Your task to perform on an android device: delete the emails in spam in the gmail app Image 0: 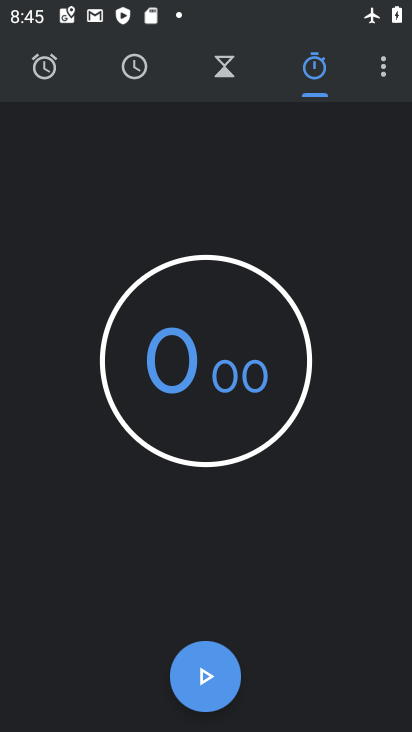
Step 0: drag from (193, 603) to (229, 340)
Your task to perform on an android device: delete the emails in spam in the gmail app Image 1: 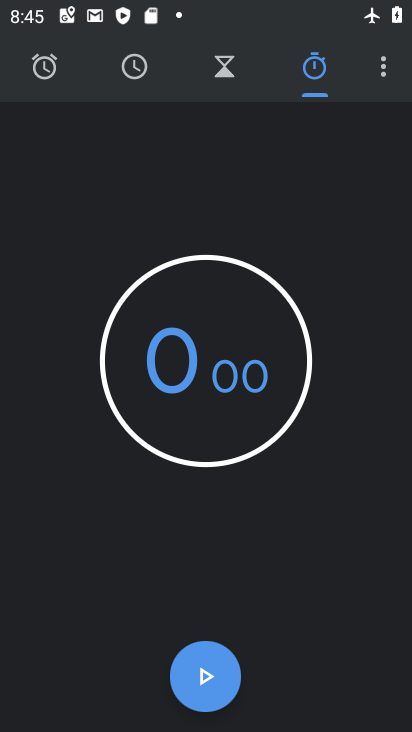
Step 1: click (302, 377)
Your task to perform on an android device: delete the emails in spam in the gmail app Image 2: 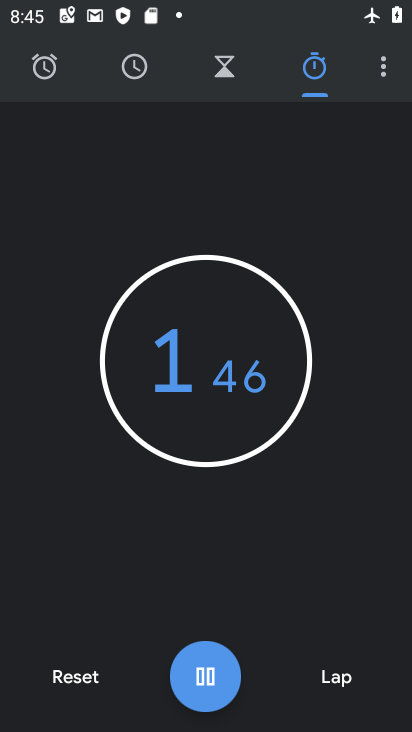
Step 2: click (392, 71)
Your task to perform on an android device: delete the emails in spam in the gmail app Image 3: 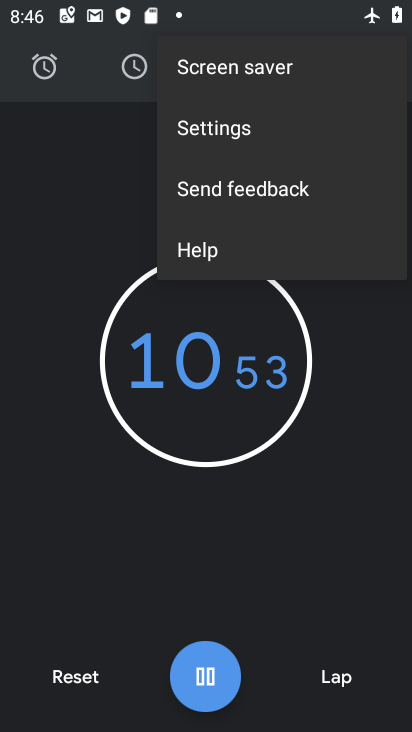
Step 3: press home button
Your task to perform on an android device: delete the emails in spam in the gmail app Image 4: 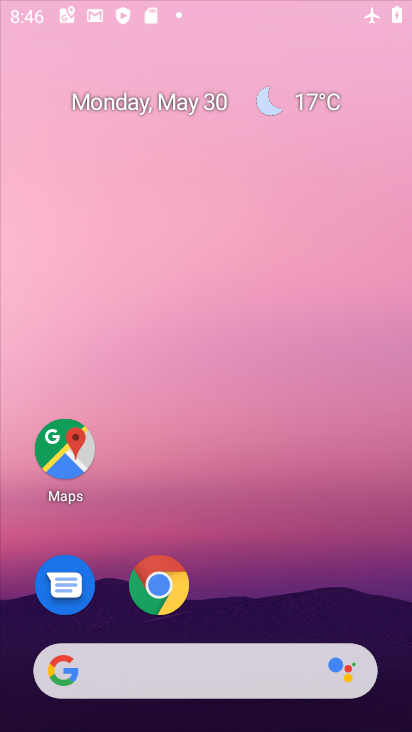
Step 4: drag from (208, 604) to (316, 60)
Your task to perform on an android device: delete the emails in spam in the gmail app Image 5: 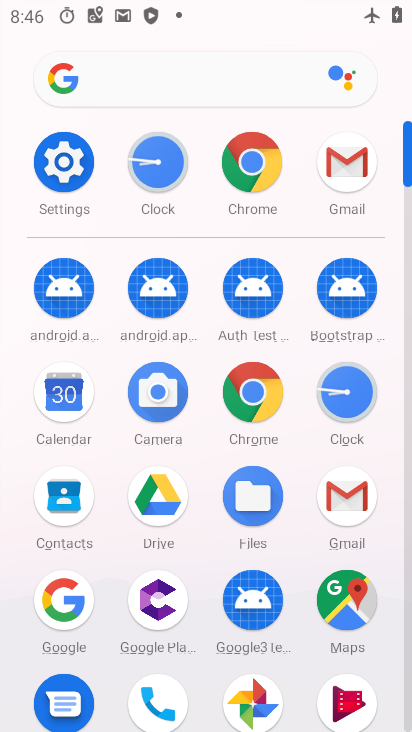
Step 5: click (339, 485)
Your task to perform on an android device: delete the emails in spam in the gmail app Image 6: 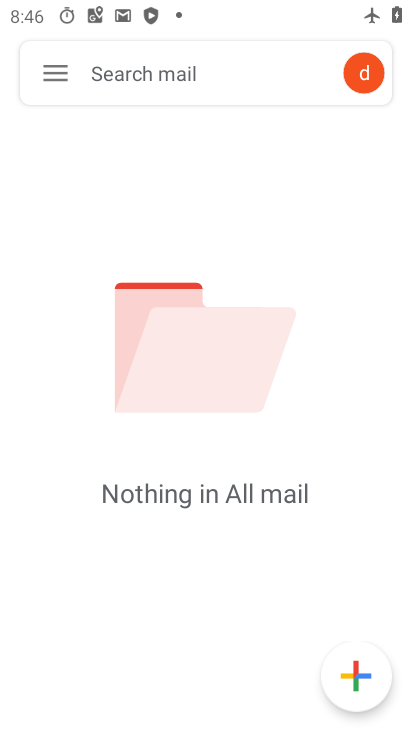
Step 6: drag from (252, 490) to (264, 305)
Your task to perform on an android device: delete the emails in spam in the gmail app Image 7: 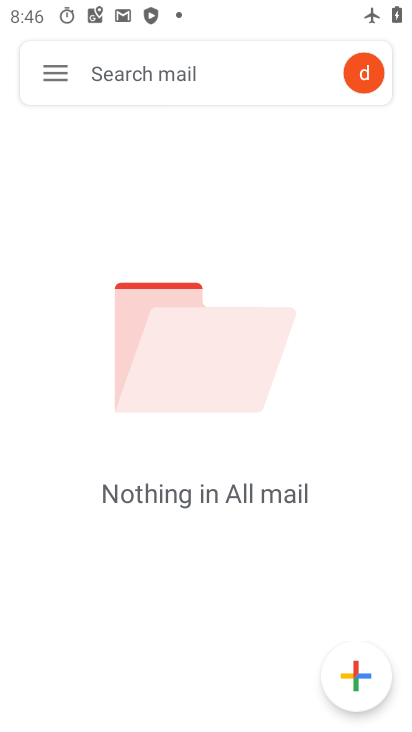
Step 7: click (49, 79)
Your task to perform on an android device: delete the emails in spam in the gmail app Image 8: 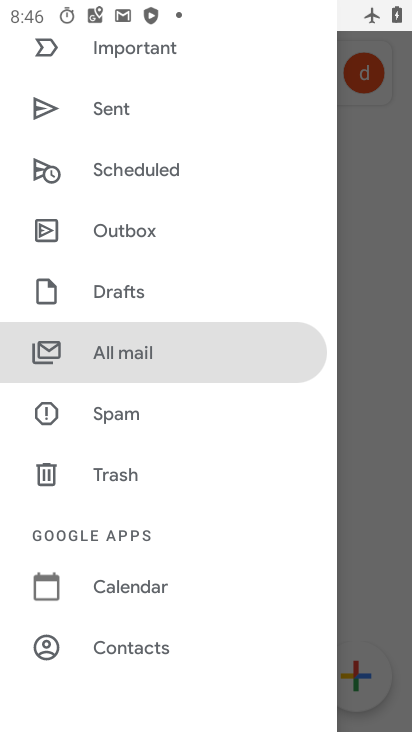
Step 8: click (220, 121)
Your task to perform on an android device: delete the emails in spam in the gmail app Image 9: 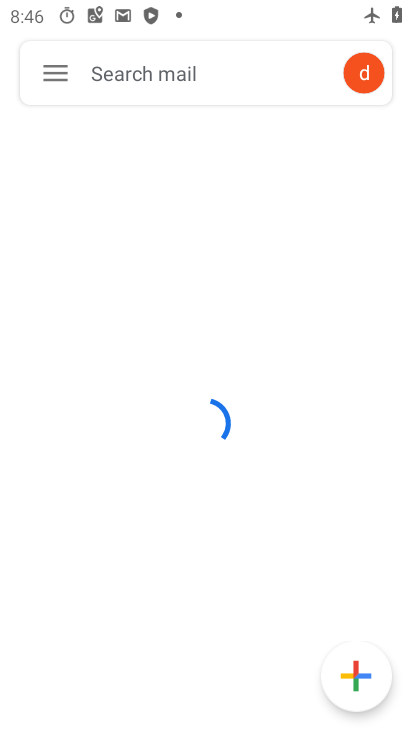
Step 9: click (58, 72)
Your task to perform on an android device: delete the emails in spam in the gmail app Image 10: 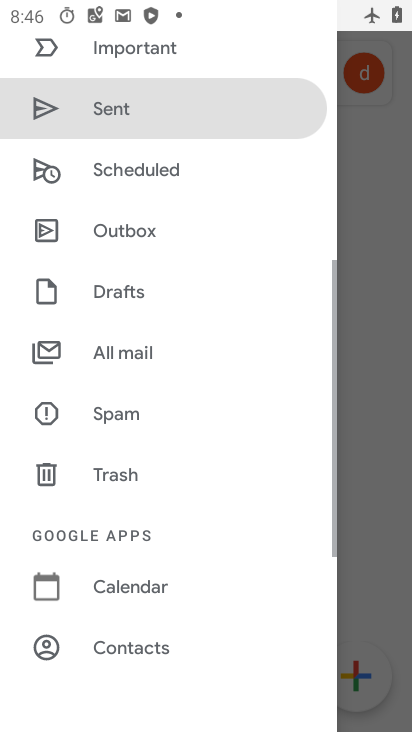
Step 10: drag from (143, 213) to (222, 730)
Your task to perform on an android device: delete the emails in spam in the gmail app Image 11: 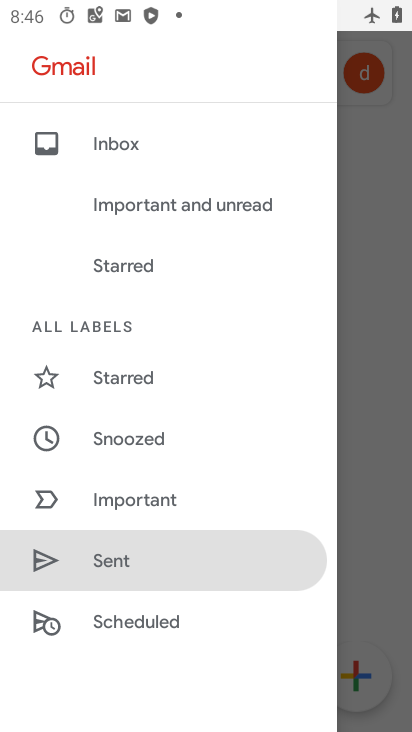
Step 11: drag from (198, 600) to (288, 84)
Your task to perform on an android device: delete the emails in spam in the gmail app Image 12: 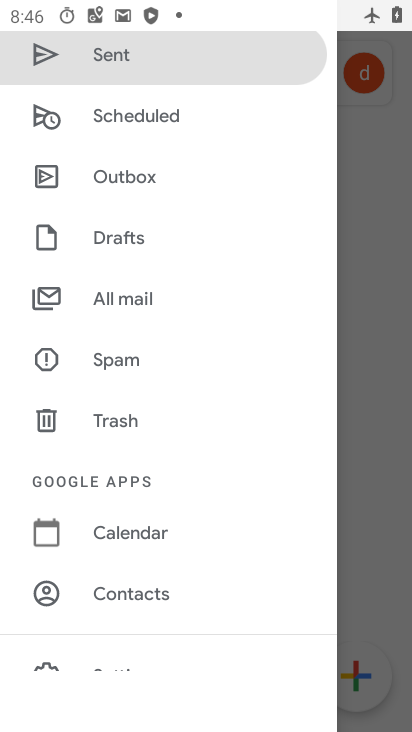
Step 12: drag from (155, 485) to (259, 87)
Your task to perform on an android device: delete the emails in spam in the gmail app Image 13: 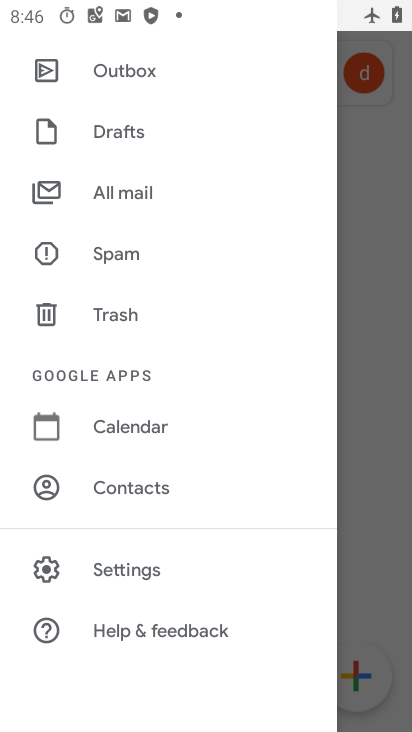
Step 13: click (150, 308)
Your task to perform on an android device: delete the emails in spam in the gmail app Image 14: 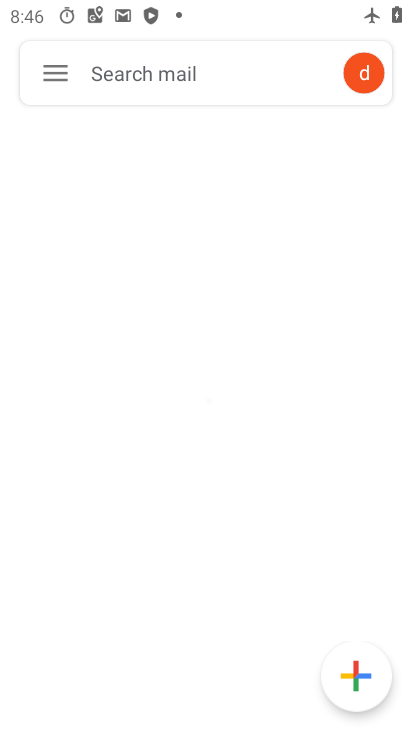
Step 14: task complete